Your task to perform on an android device: Add "bose soundsport free" to the cart on ebay, then select checkout. Image 0: 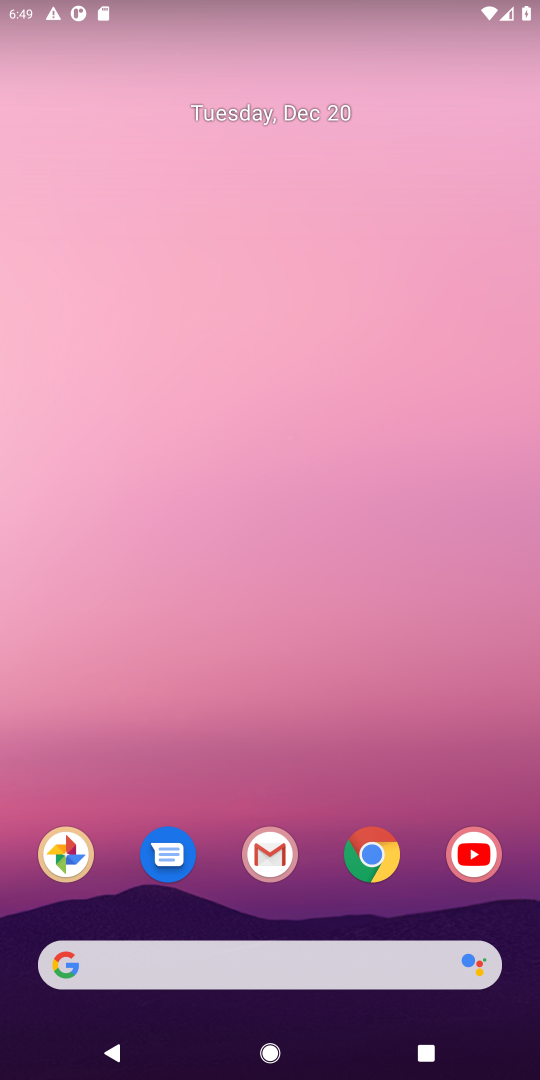
Step 0: click (370, 861)
Your task to perform on an android device: Add "bose soundsport free" to the cart on ebay, then select checkout. Image 1: 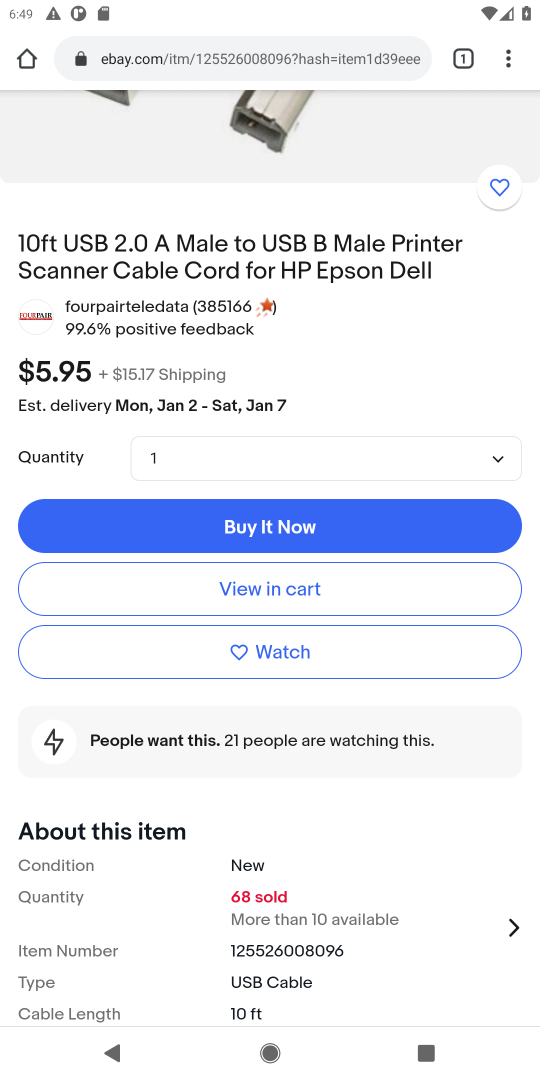
Step 1: drag from (219, 381) to (215, 1035)
Your task to perform on an android device: Add "bose soundsport free" to the cart on ebay, then select checkout. Image 2: 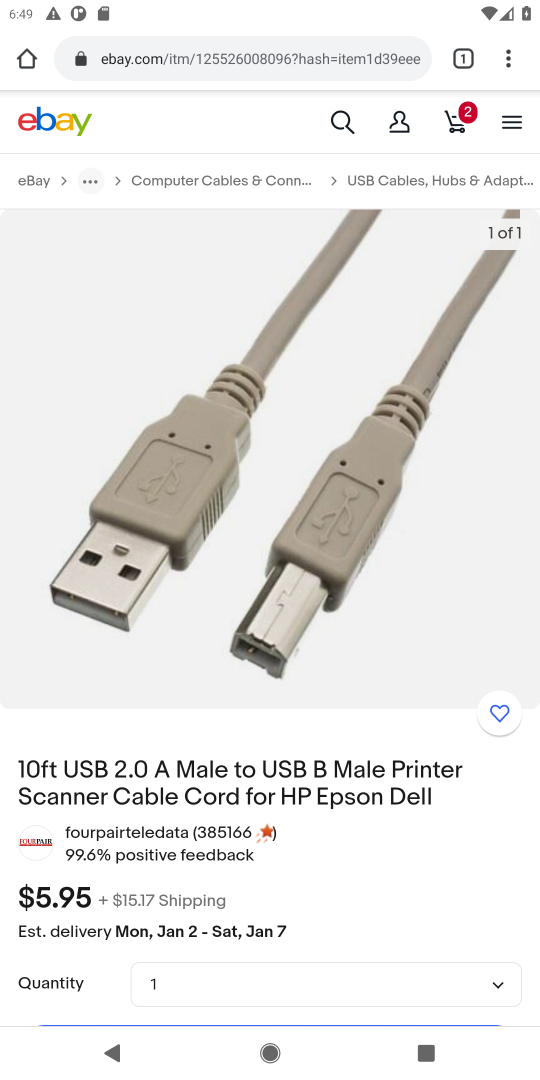
Step 2: press back button
Your task to perform on an android device: Add "bose soundsport free" to the cart on ebay, then select checkout. Image 3: 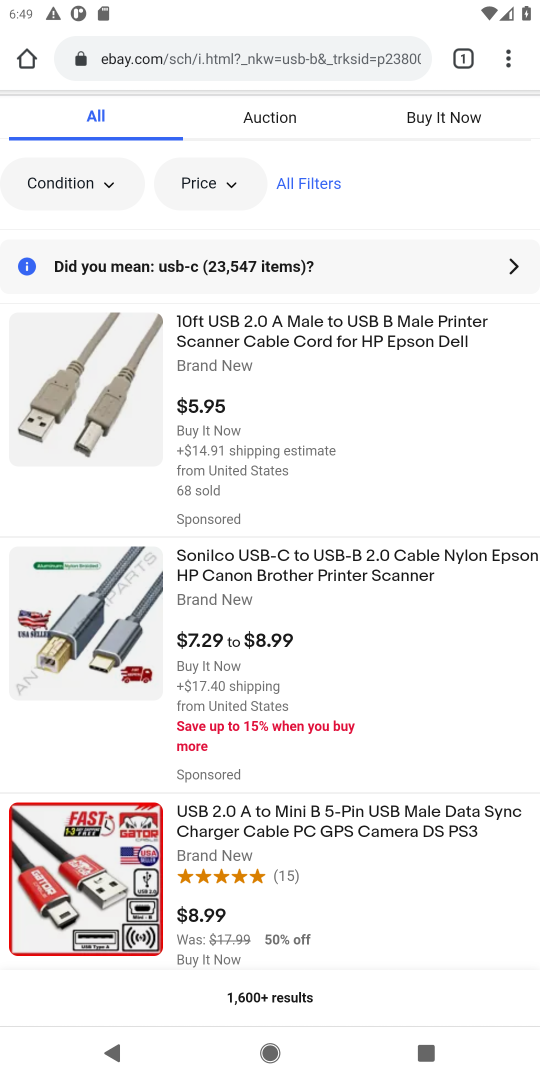
Step 3: drag from (287, 149) to (274, 628)
Your task to perform on an android device: Add "bose soundsport free" to the cart on ebay, then select checkout. Image 4: 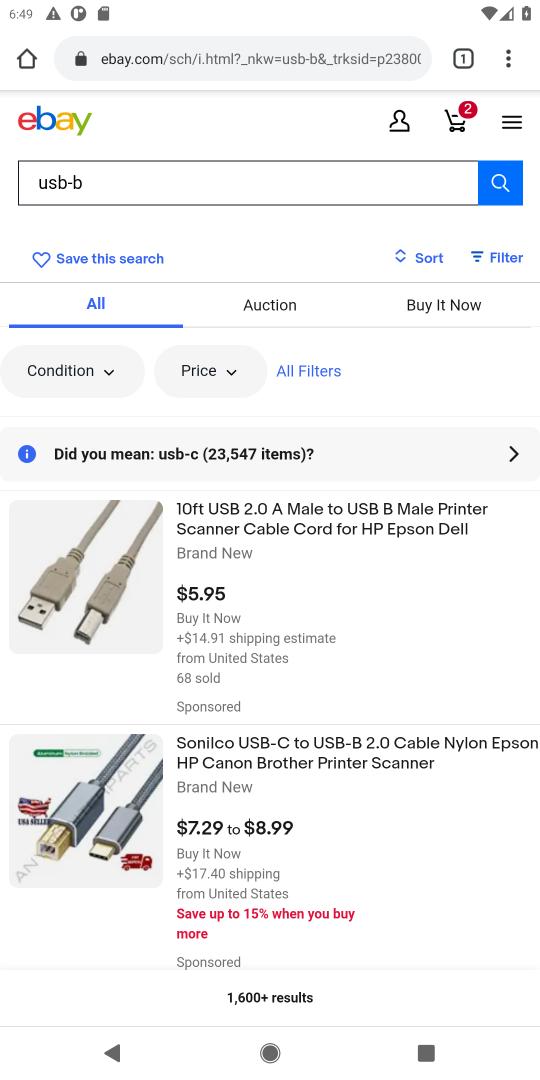
Step 4: click (185, 188)
Your task to perform on an android device: Add "bose soundsport free" to the cart on ebay, then select checkout. Image 5: 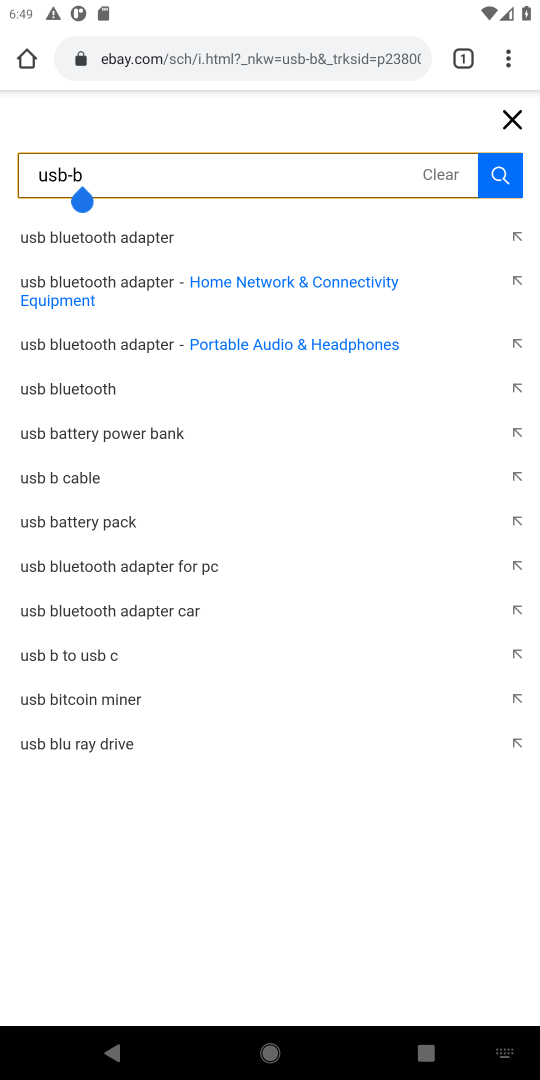
Step 5: click (436, 177)
Your task to perform on an android device: Add "bose soundsport free" to the cart on ebay, then select checkout. Image 6: 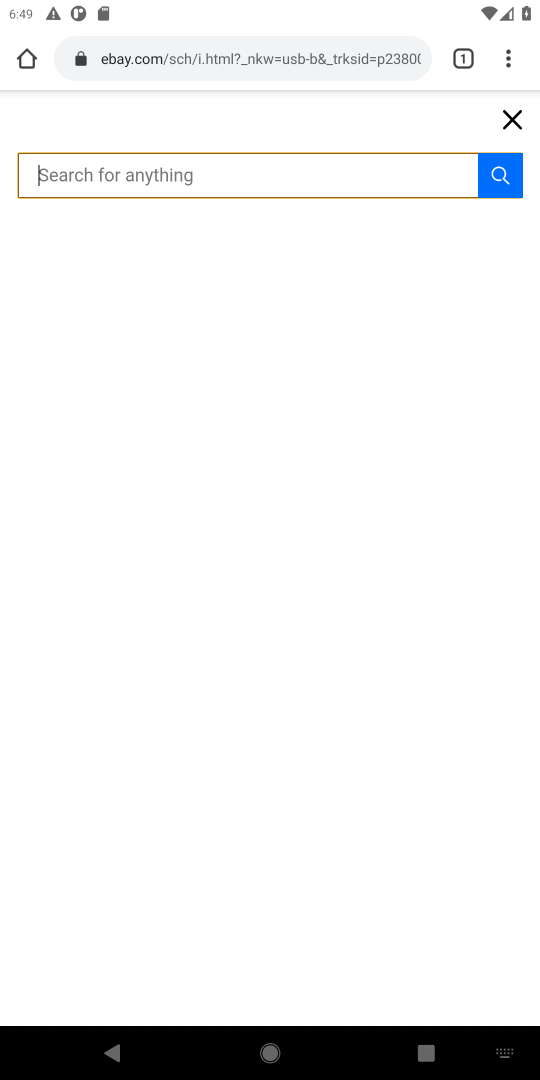
Step 6: type "bose soundsport free"
Your task to perform on an android device: Add "bose soundsport free" to the cart on ebay, then select checkout. Image 7: 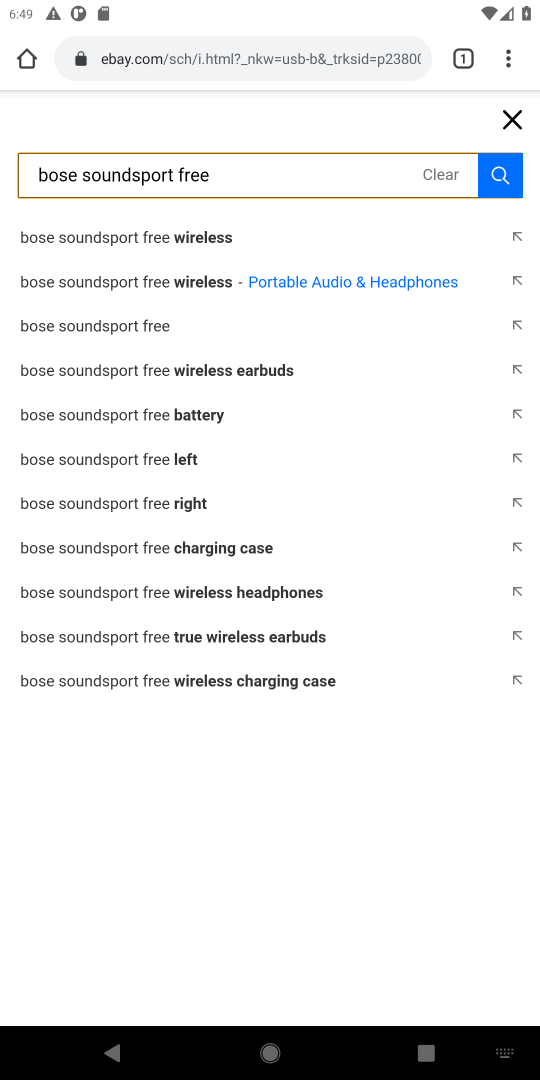
Step 7: click (89, 333)
Your task to perform on an android device: Add "bose soundsport free" to the cart on ebay, then select checkout. Image 8: 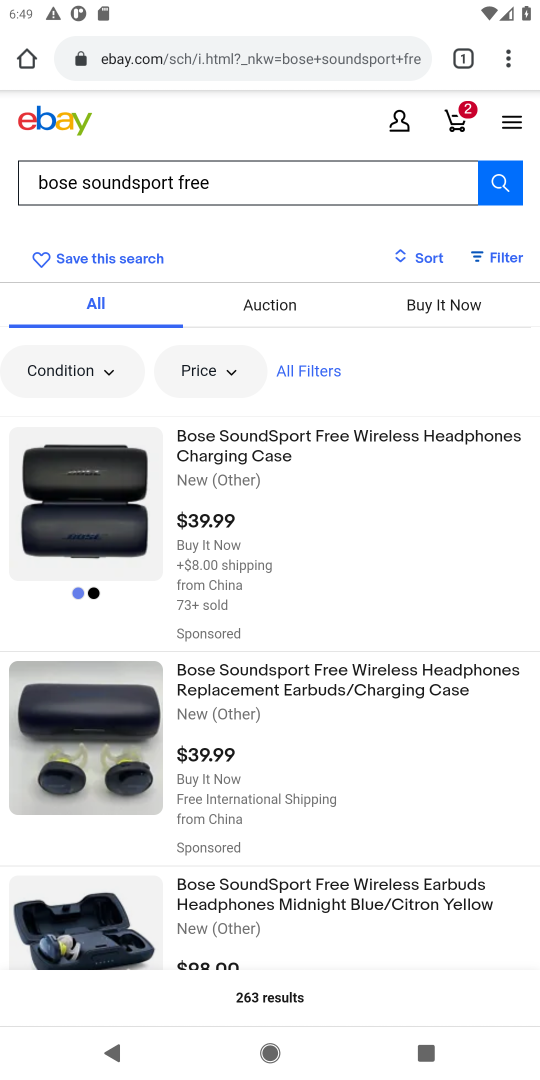
Step 8: click (207, 459)
Your task to perform on an android device: Add "bose soundsport free" to the cart on ebay, then select checkout. Image 9: 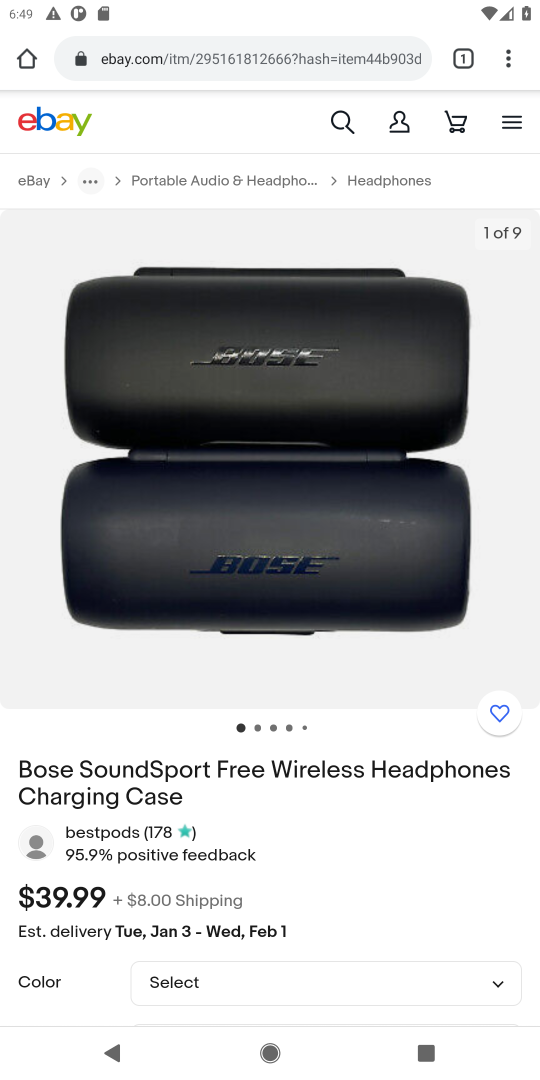
Step 9: drag from (226, 727) to (275, 273)
Your task to perform on an android device: Add "bose soundsport free" to the cart on ebay, then select checkout. Image 10: 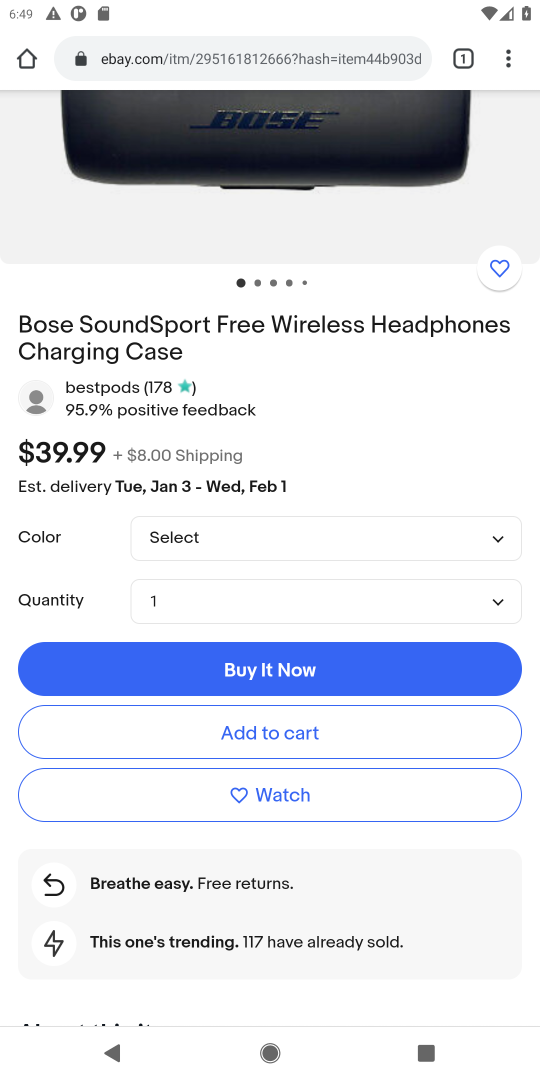
Step 10: click (213, 729)
Your task to perform on an android device: Add "bose soundsport free" to the cart on ebay, then select checkout. Image 11: 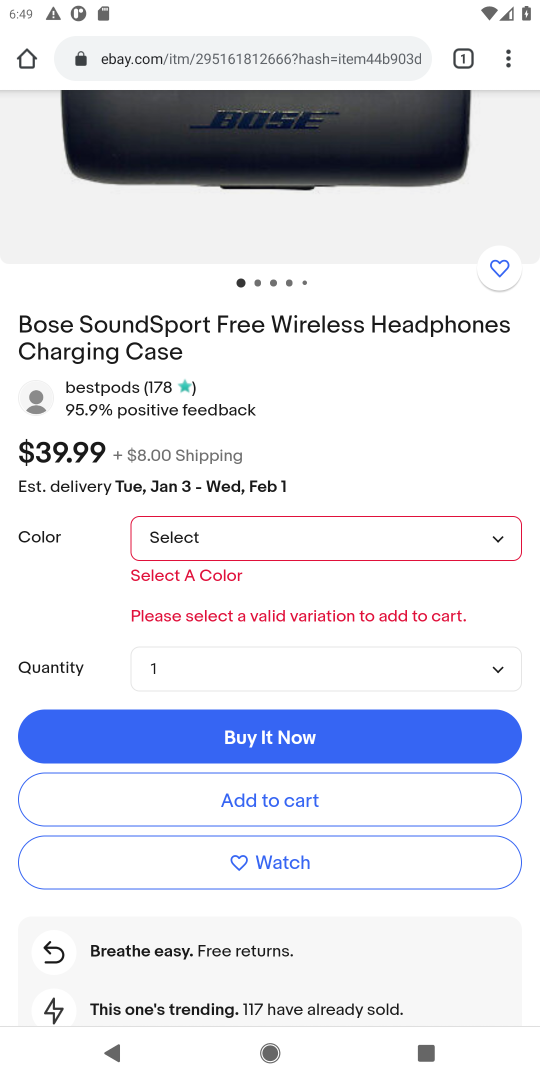
Step 11: click (503, 548)
Your task to perform on an android device: Add "bose soundsport free" to the cart on ebay, then select checkout. Image 12: 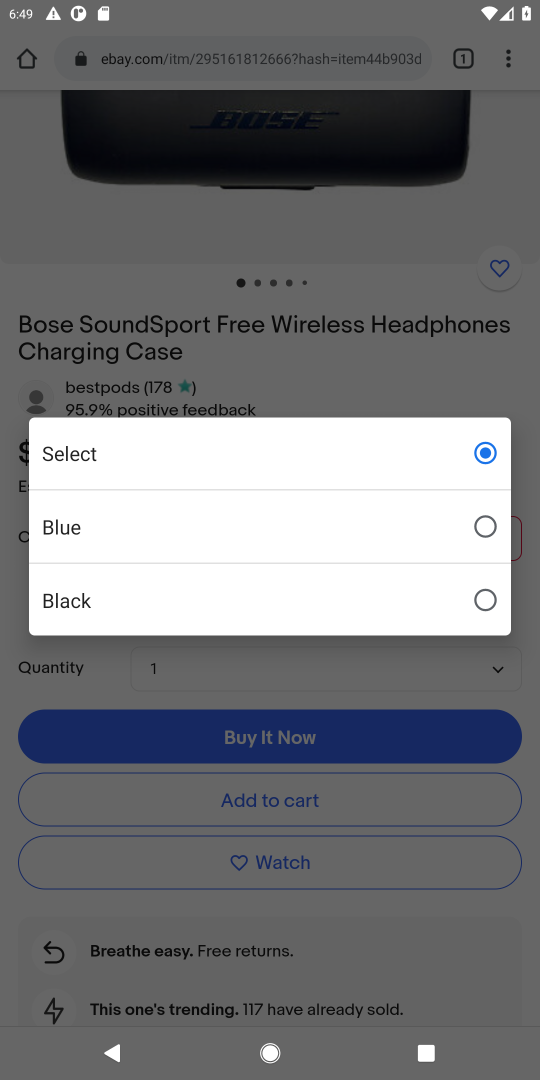
Step 12: click (76, 526)
Your task to perform on an android device: Add "bose soundsport free" to the cart on ebay, then select checkout. Image 13: 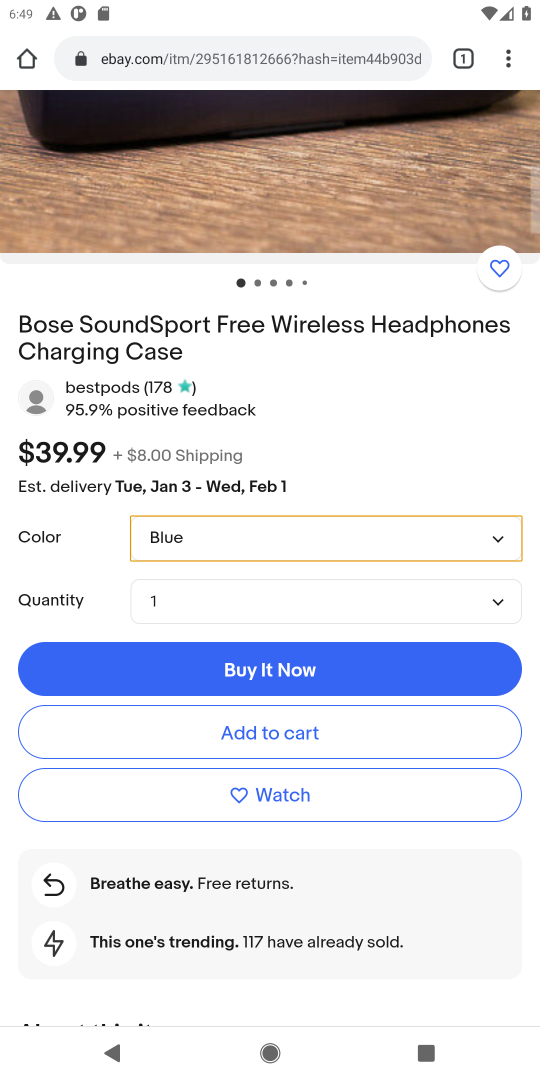
Step 13: click (278, 739)
Your task to perform on an android device: Add "bose soundsport free" to the cart on ebay, then select checkout. Image 14: 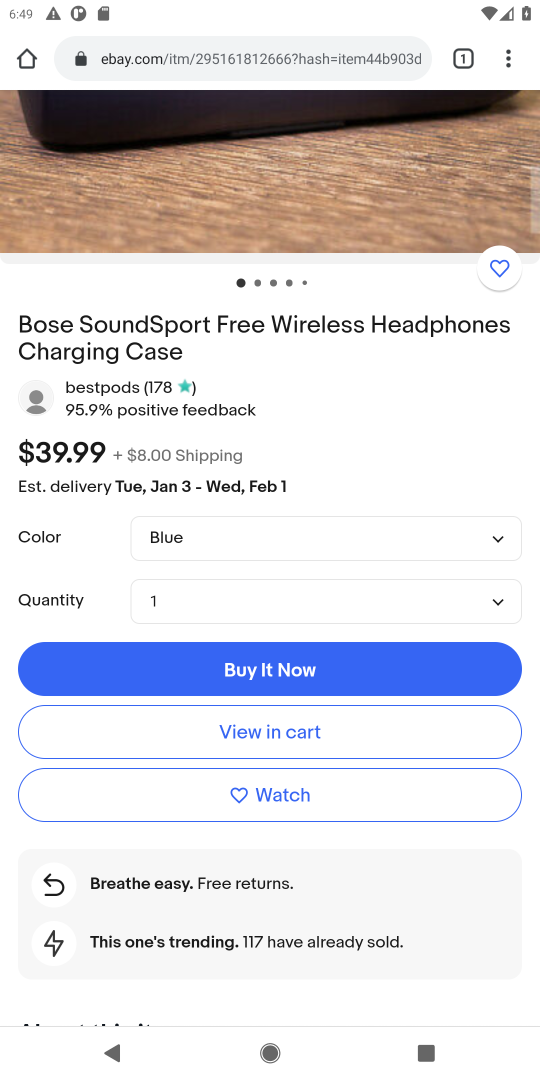
Step 14: click (278, 739)
Your task to perform on an android device: Add "bose soundsport free" to the cart on ebay, then select checkout. Image 15: 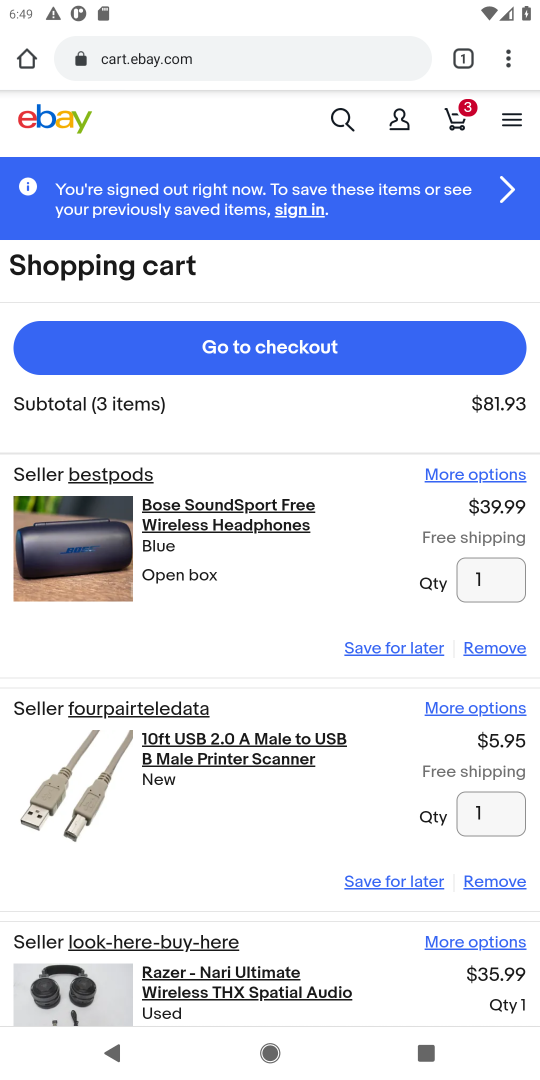
Step 15: click (258, 346)
Your task to perform on an android device: Add "bose soundsport free" to the cart on ebay, then select checkout. Image 16: 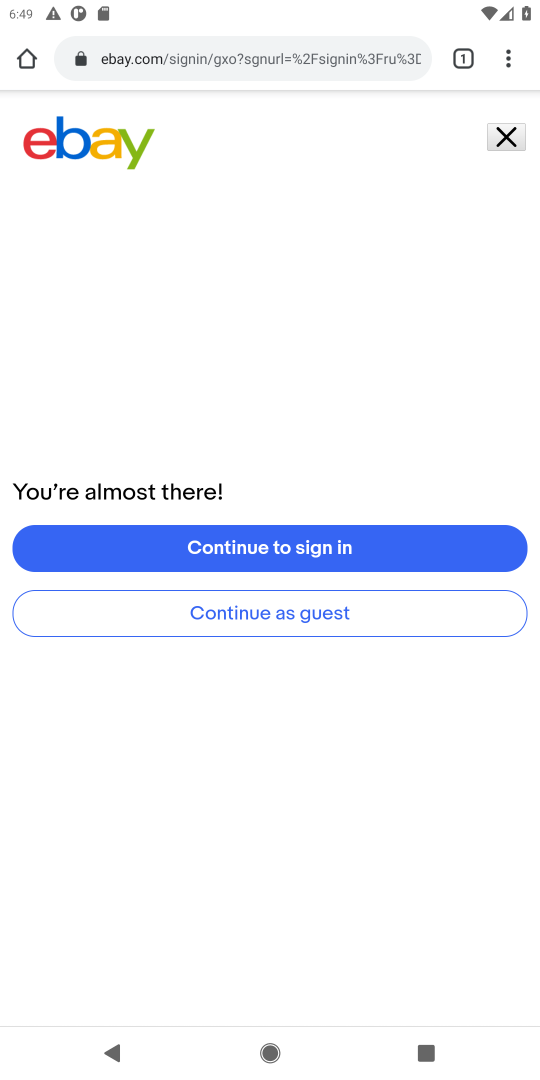
Step 16: task complete